Your task to perform on an android device: Open network settings Image 0: 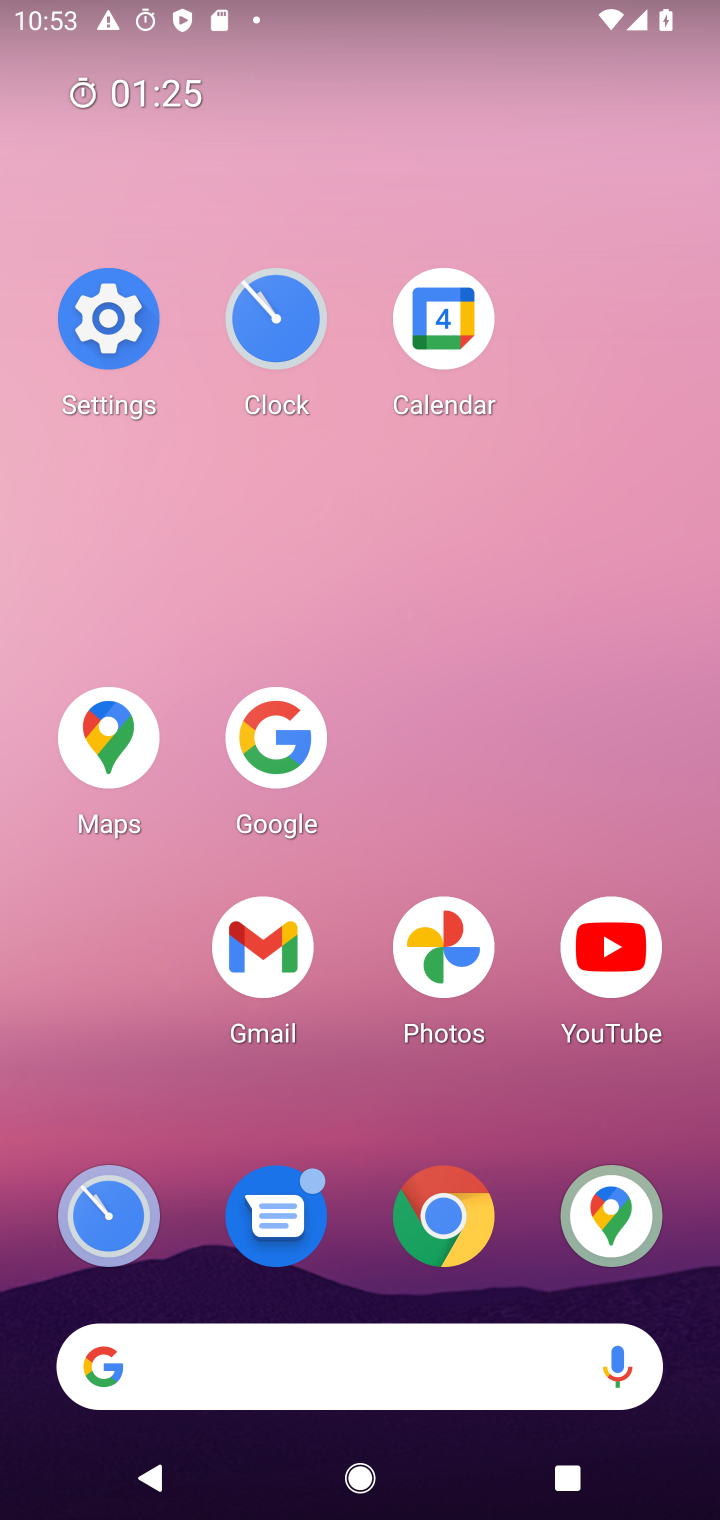
Step 0: click (123, 326)
Your task to perform on an android device: Open network settings Image 1: 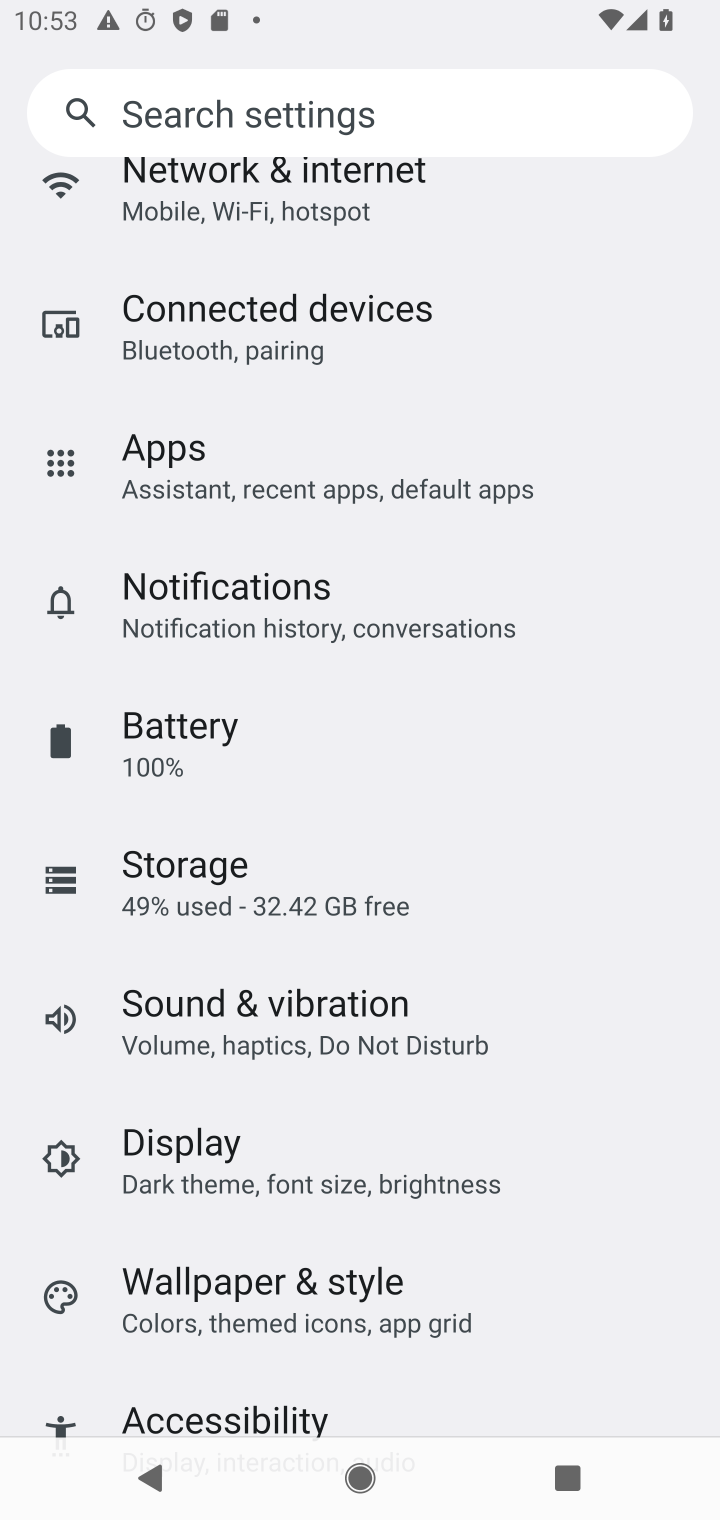
Step 1: click (466, 194)
Your task to perform on an android device: Open network settings Image 2: 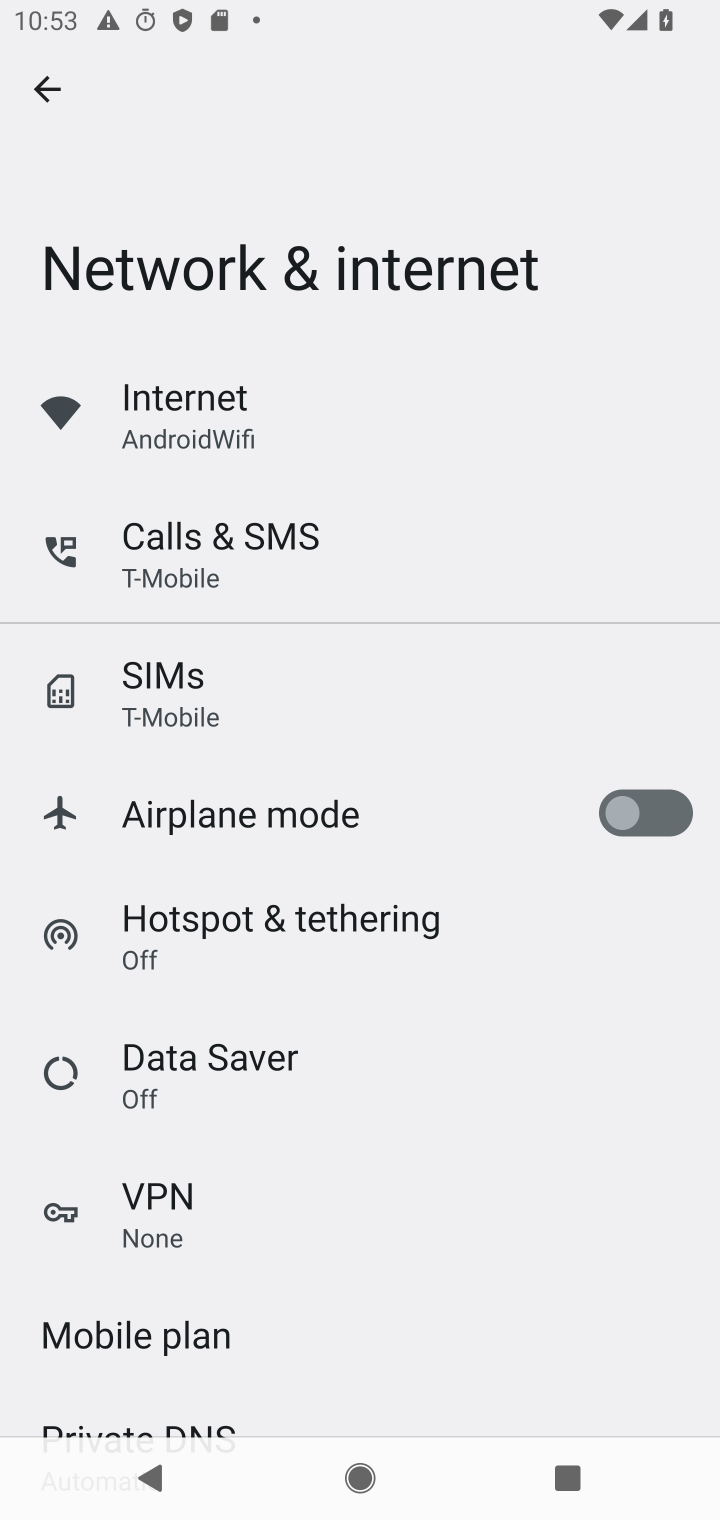
Step 2: task complete